Your task to perform on an android device: toggle airplane mode Image 0: 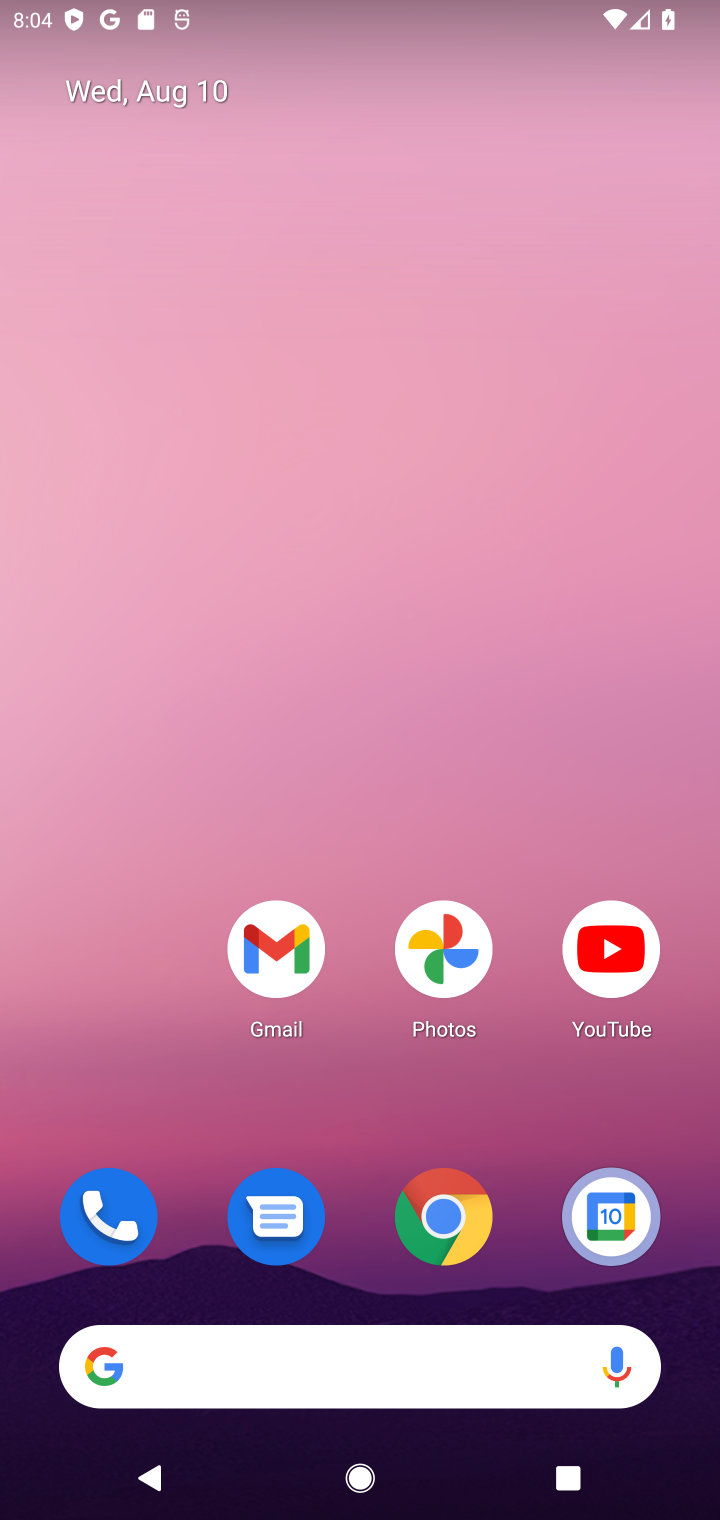
Step 0: drag from (61, 1413) to (544, 269)
Your task to perform on an android device: toggle airplane mode Image 1: 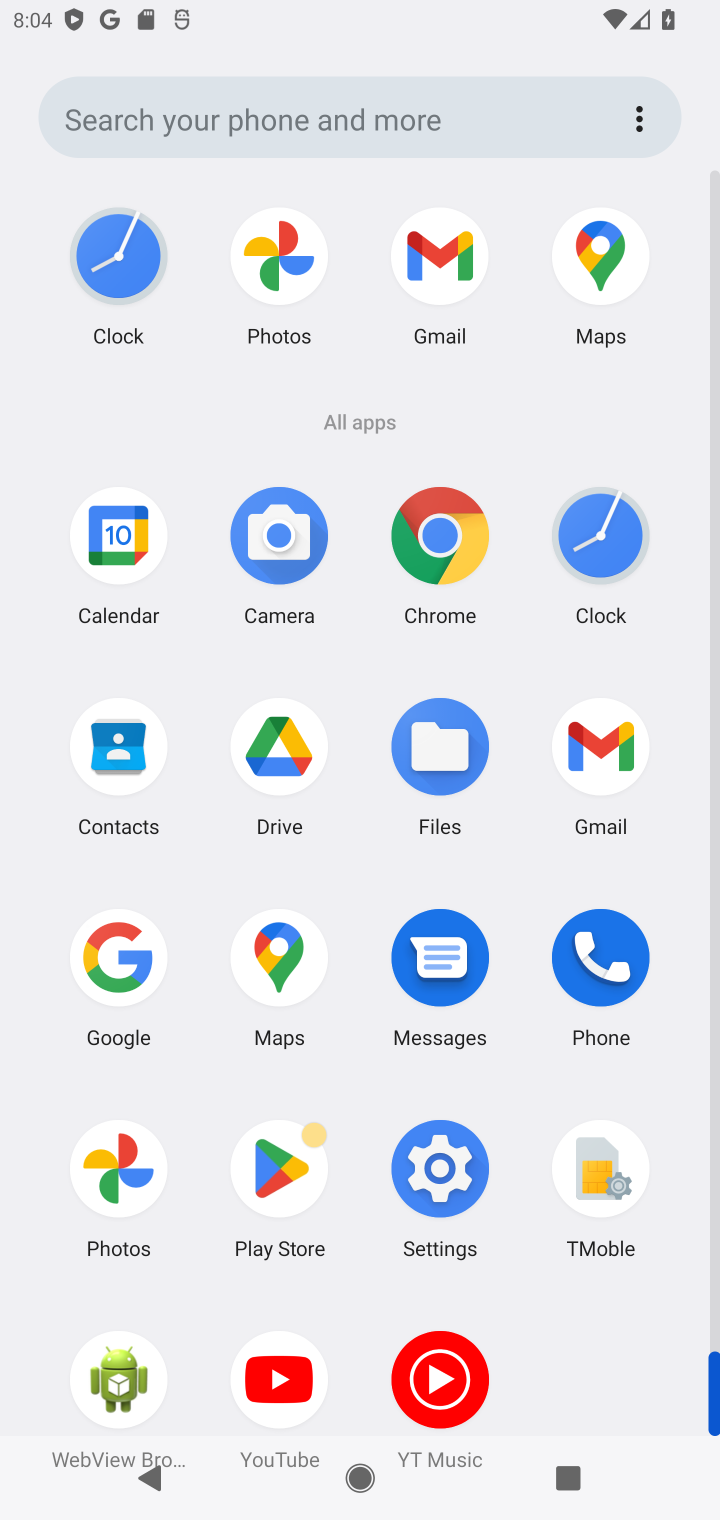
Step 1: click (427, 1185)
Your task to perform on an android device: toggle airplane mode Image 2: 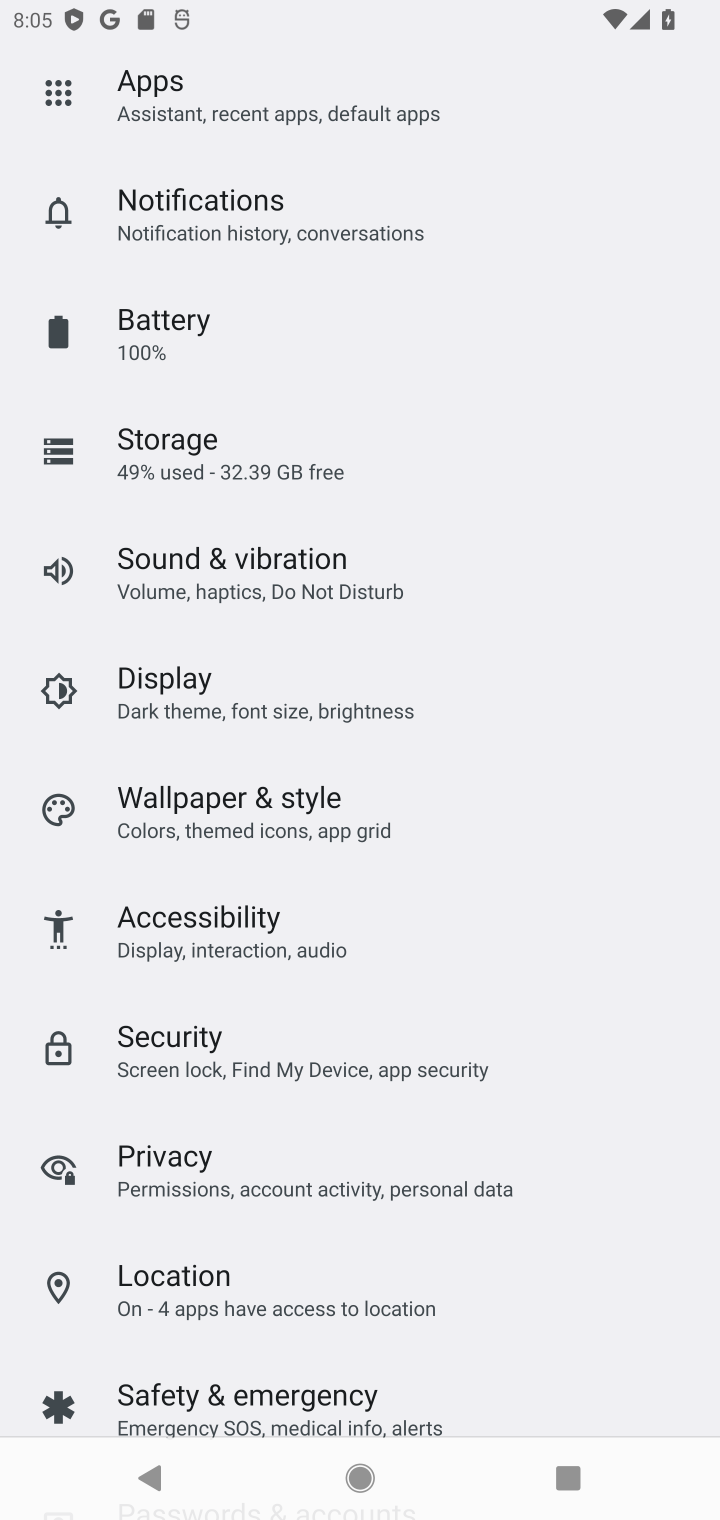
Step 2: drag from (471, 147) to (425, 1218)
Your task to perform on an android device: toggle airplane mode Image 3: 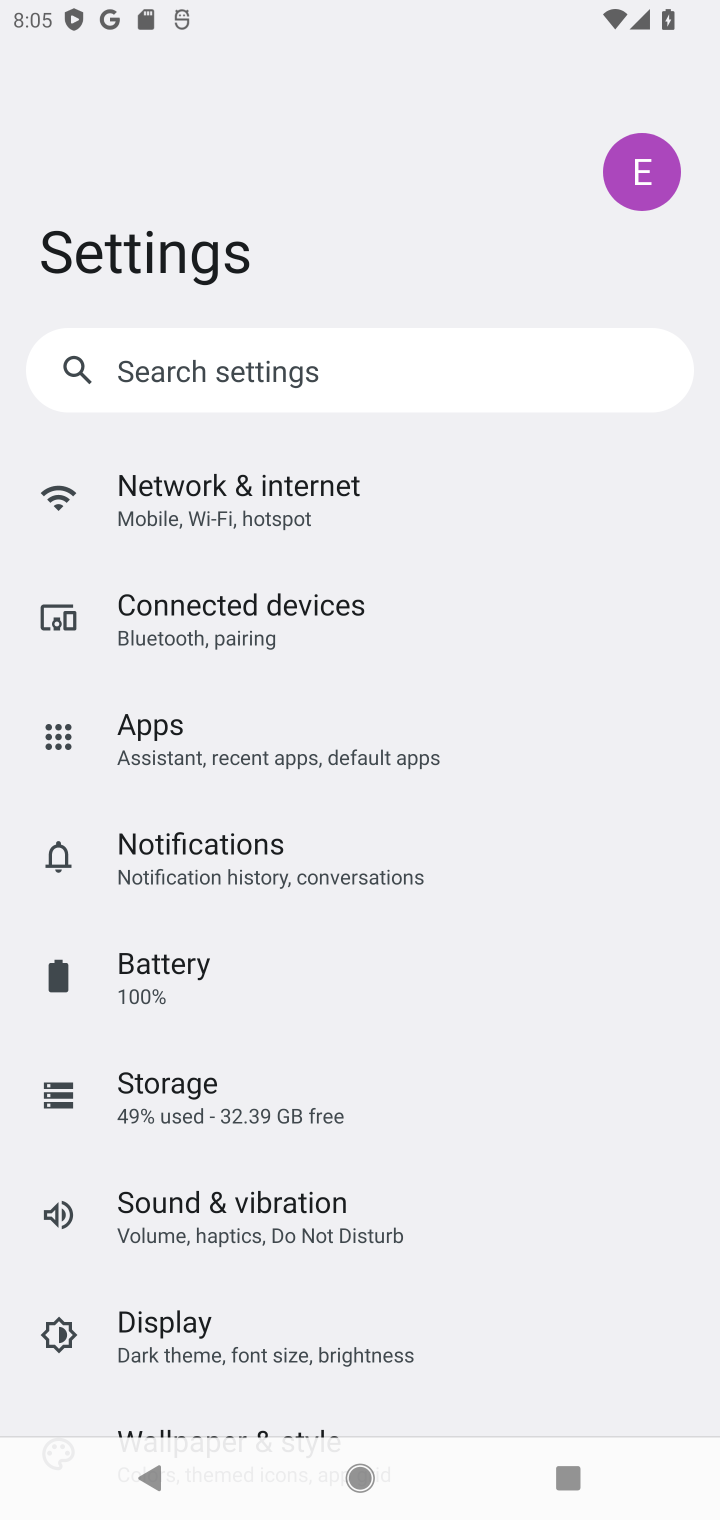
Step 3: click (365, 514)
Your task to perform on an android device: toggle airplane mode Image 4: 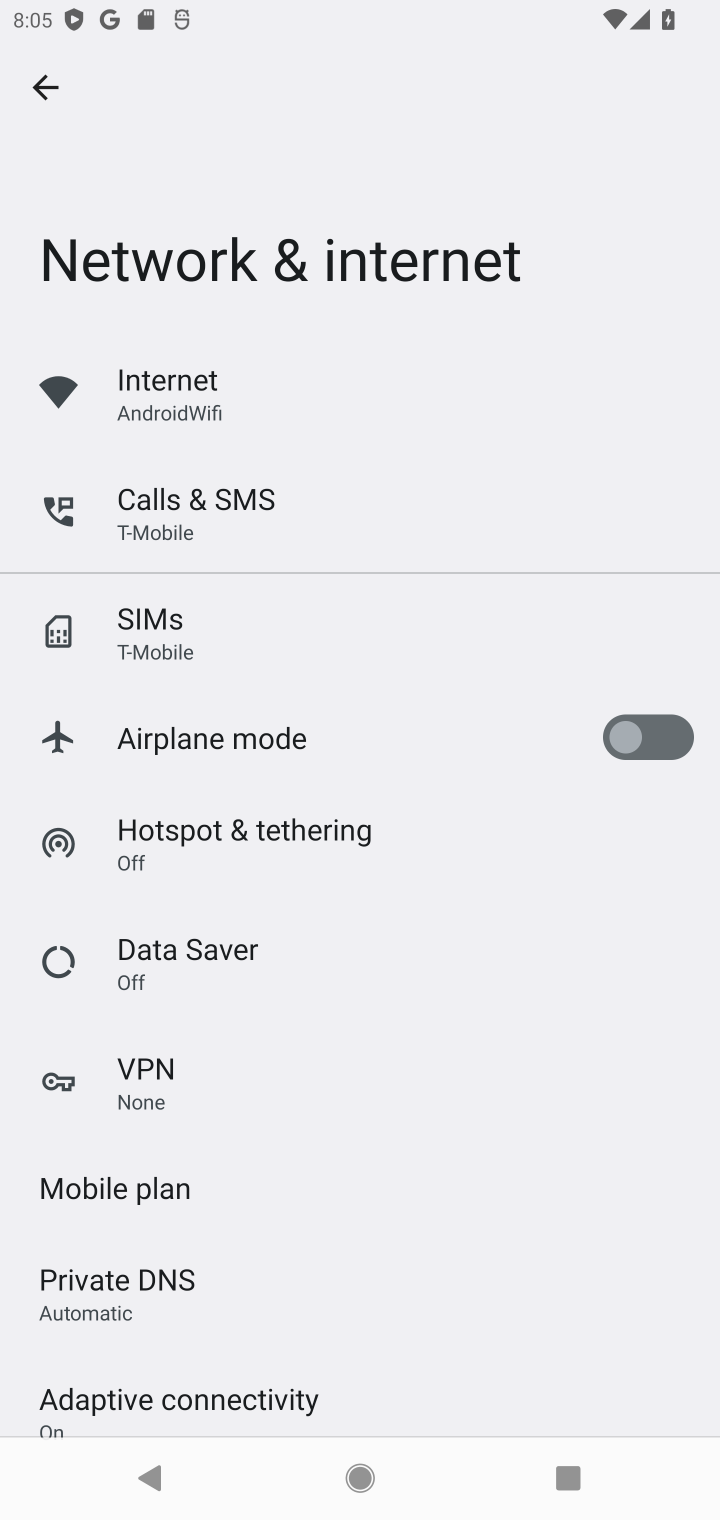
Step 4: click (649, 738)
Your task to perform on an android device: toggle airplane mode Image 5: 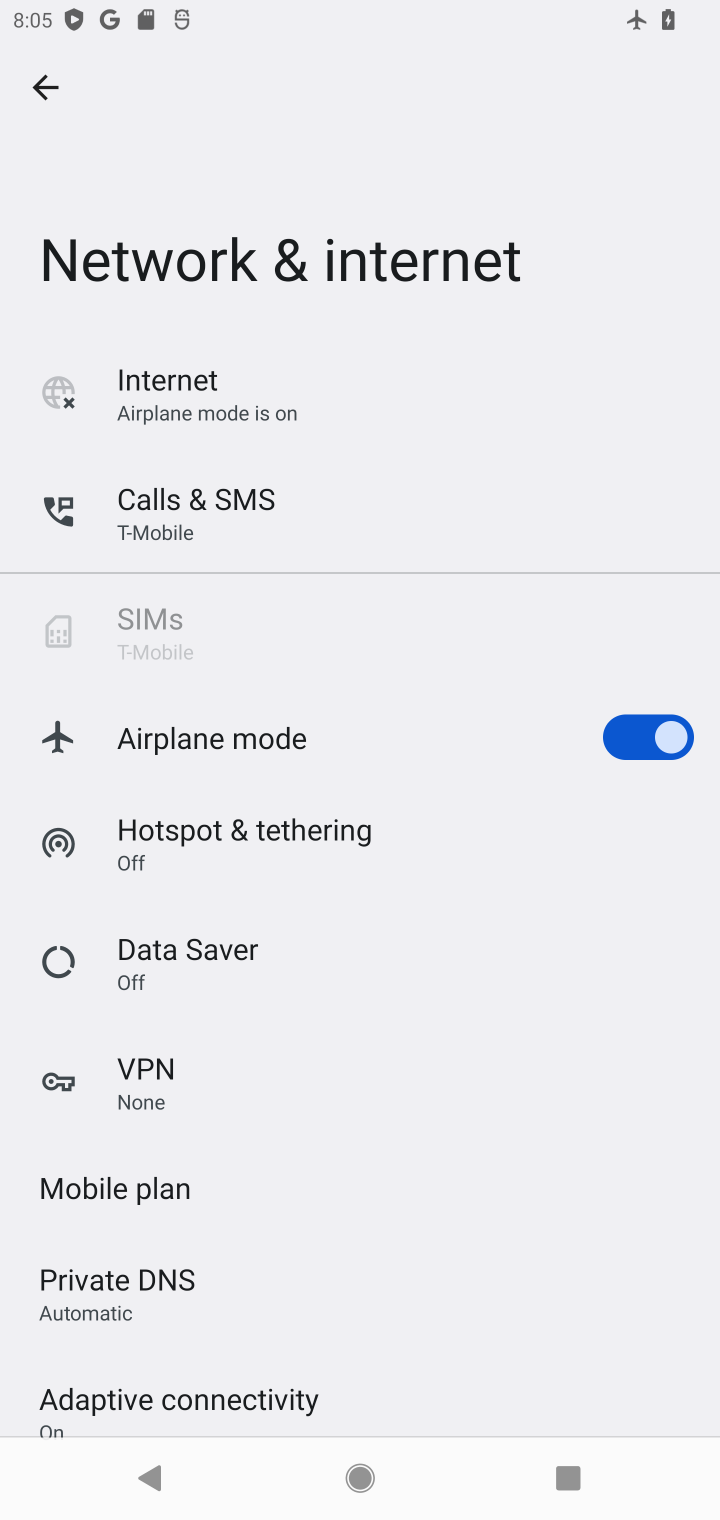
Step 5: task complete